Your task to perform on an android device: turn on javascript in the chrome app Image 0: 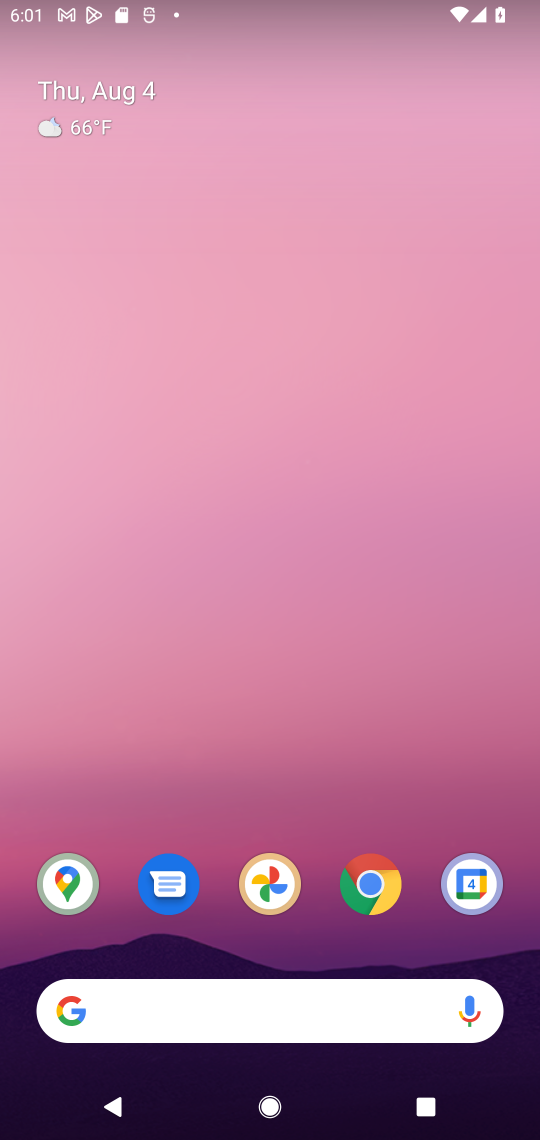
Step 0: click (378, 892)
Your task to perform on an android device: turn on javascript in the chrome app Image 1: 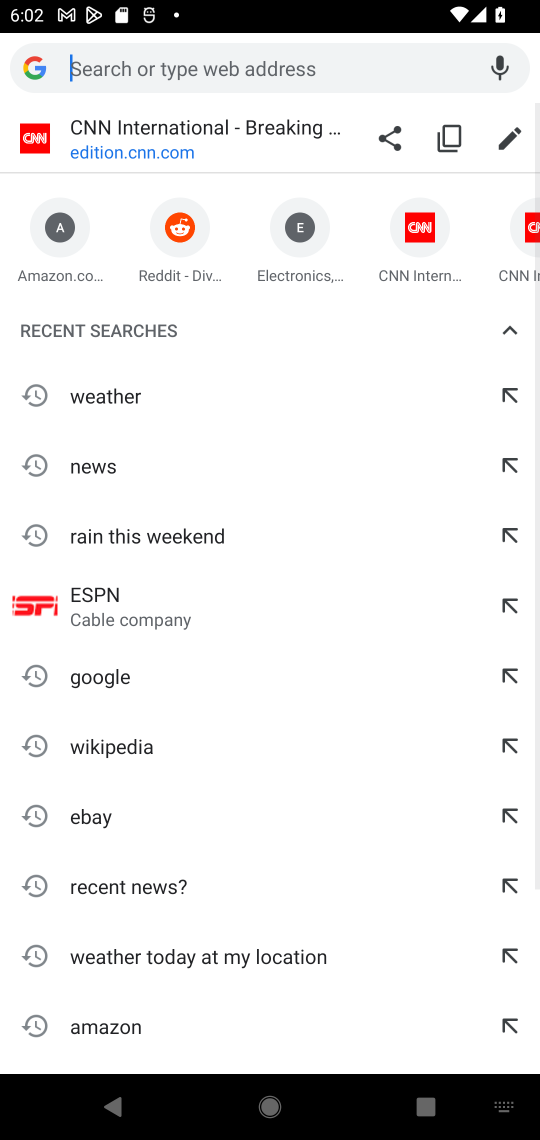
Step 1: task complete